Your task to perform on an android device: change your default location settings in chrome Image 0: 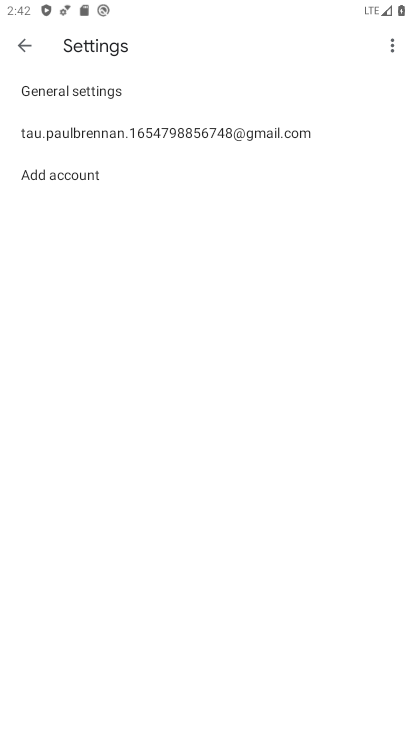
Step 0: press home button
Your task to perform on an android device: change your default location settings in chrome Image 1: 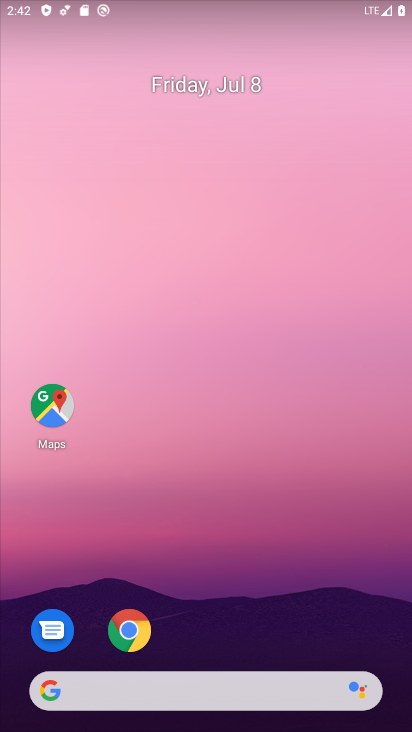
Step 1: drag from (282, 555) to (296, 328)
Your task to perform on an android device: change your default location settings in chrome Image 2: 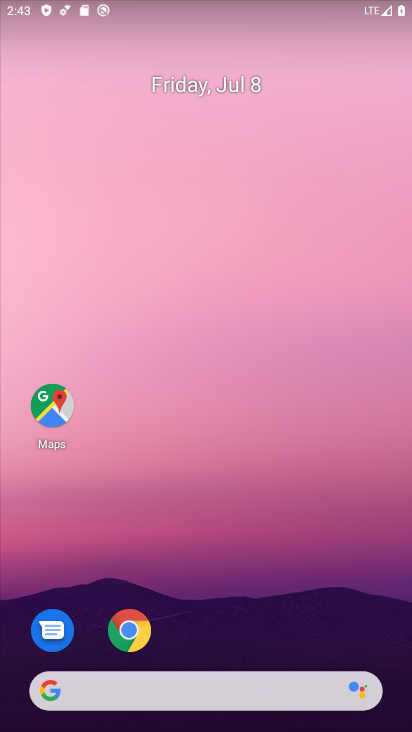
Step 2: drag from (253, 484) to (218, 257)
Your task to perform on an android device: change your default location settings in chrome Image 3: 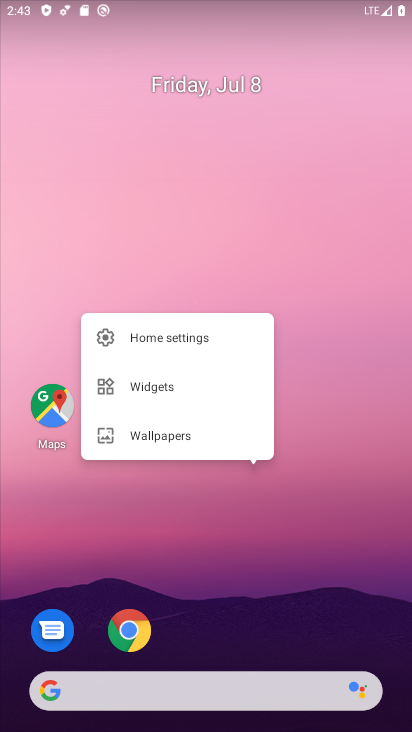
Step 3: drag from (286, 557) to (289, 353)
Your task to perform on an android device: change your default location settings in chrome Image 4: 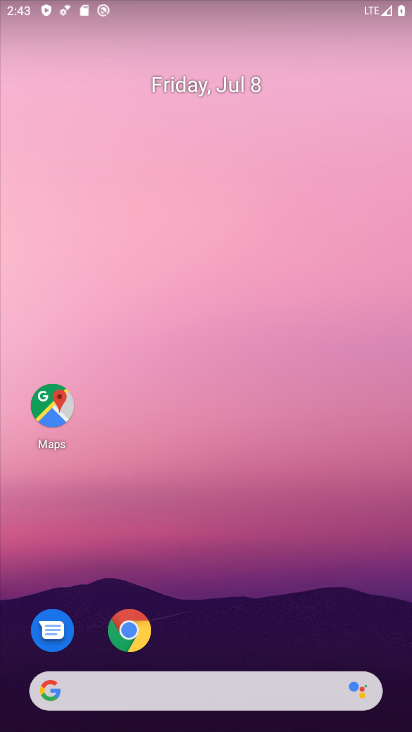
Step 4: click (315, 339)
Your task to perform on an android device: change your default location settings in chrome Image 5: 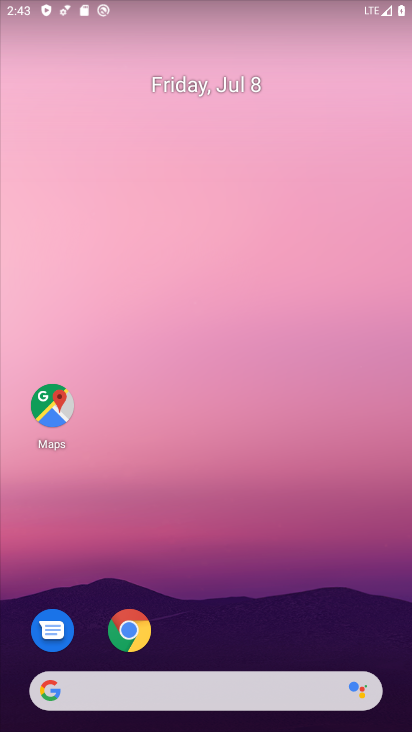
Step 5: drag from (290, 340) to (325, 51)
Your task to perform on an android device: change your default location settings in chrome Image 6: 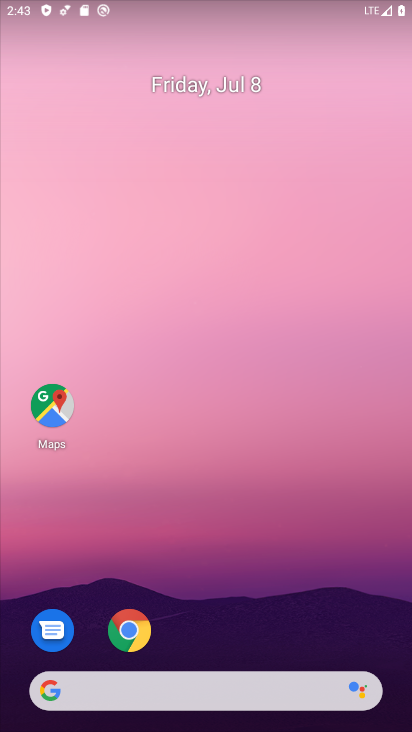
Step 6: drag from (290, 571) to (287, 378)
Your task to perform on an android device: change your default location settings in chrome Image 7: 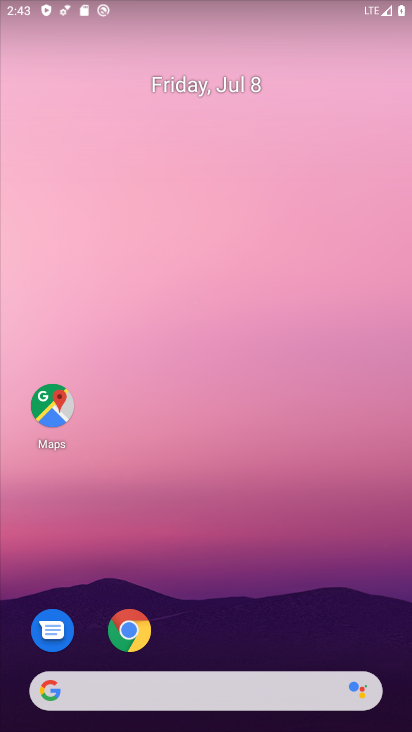
Step 7: drag from (280, 592) to (266, 259)
Your task to perform on an android device: change your default location settings in chrome Image 8: 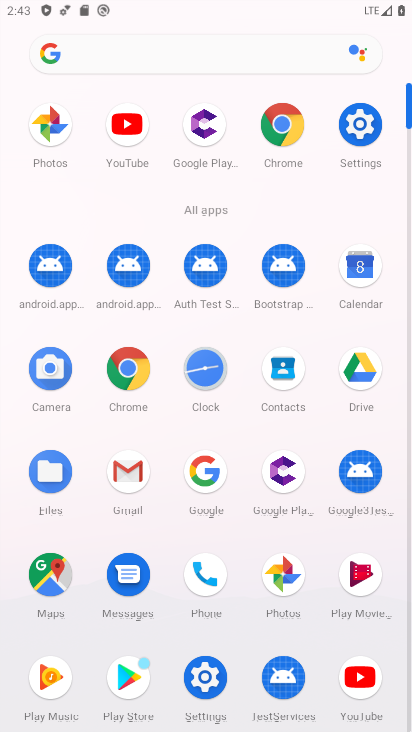
Step 8: click (133, 370)
Your task to perform on an android device: change your default location settings in chrome Image 9: 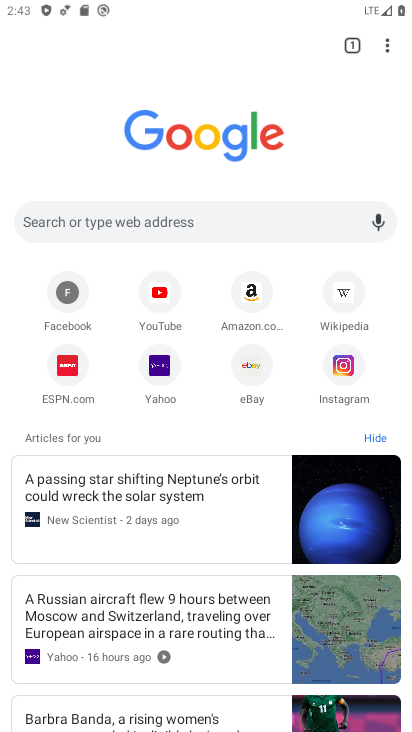
Step 9: click (382, 46)
Your task to perform on an android device: change your default location settings in chrome Image 10: 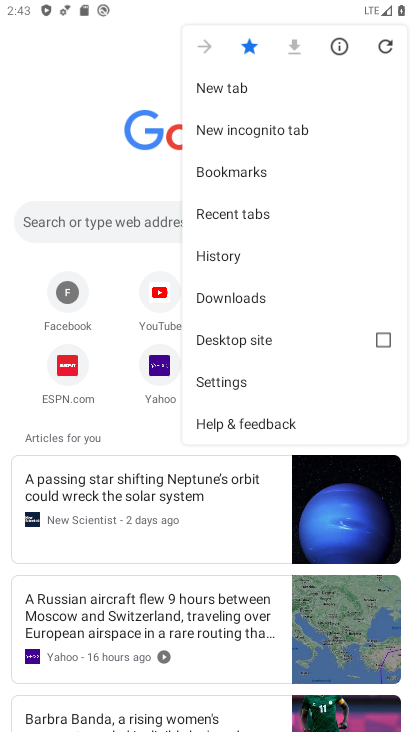
Step 10: click (219, 385)
Your task to perform on an android device: change your default location settings in chrome Image 11: 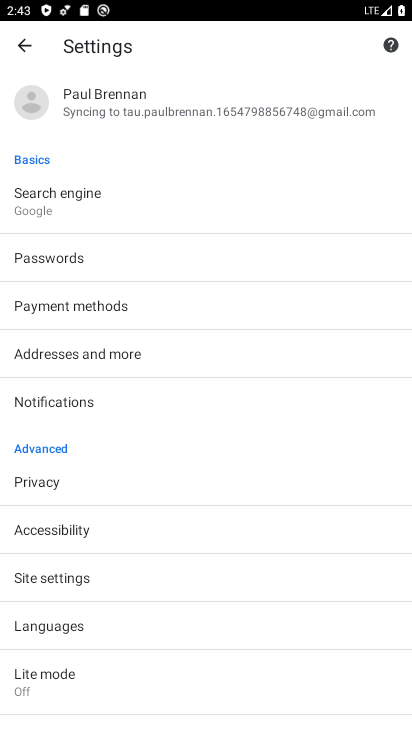
Step 11: task complete